Your task to perform on an android device: Show me recent news Image 0: 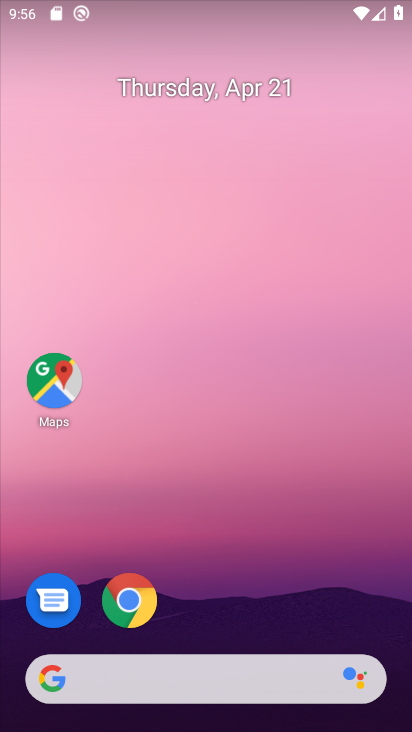
Step 0: drag from (247, 584) to (269, 12)
Your task to perform on an android device: Show me recent news Image 1: 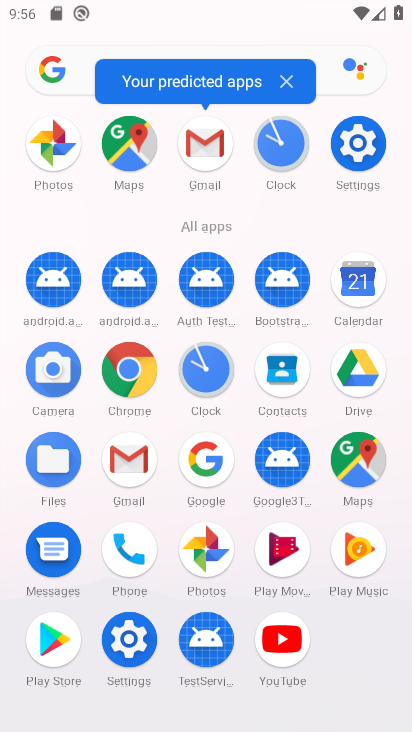
Step 1: click (215, 463)
Your task to perform on an android device: Show me recent news Image 2: 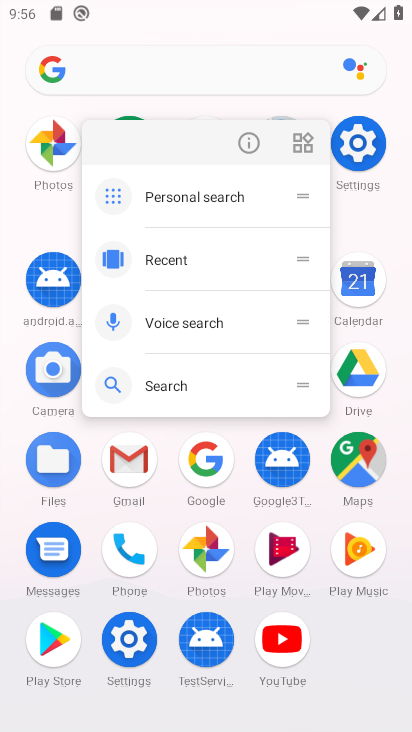
Step 2: click (207, 456)
Your task to perform on an android device: Show me recent news Image 3: 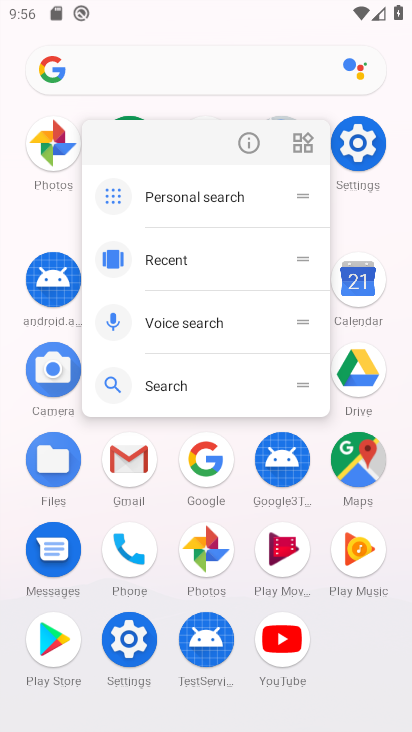
Step 3: click (206, 474)
Your task to perform on an android device: Show me recent news Image 4: 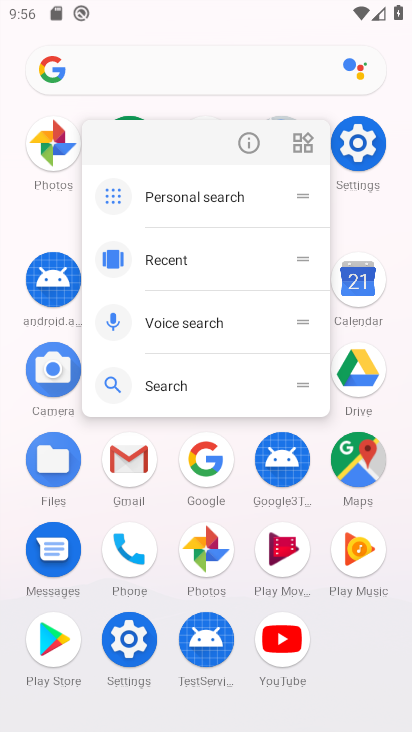
Step 4: click (198, 464)
Your task to perform on an android device: Show me recent news Image 5: 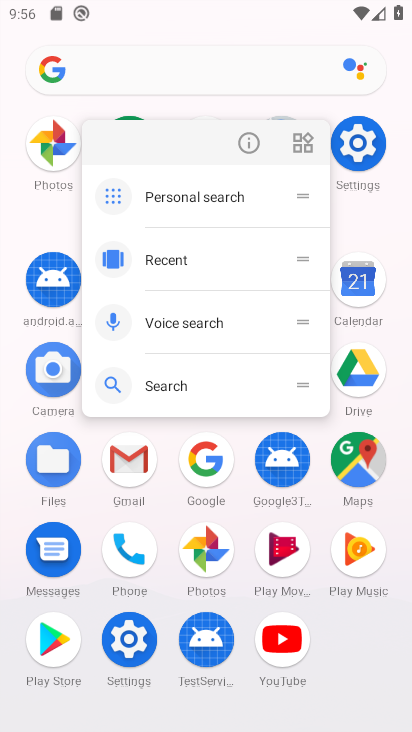
Step 5: click (214, 457)
Your task to perform on an android device: Show me recent news Image 6: 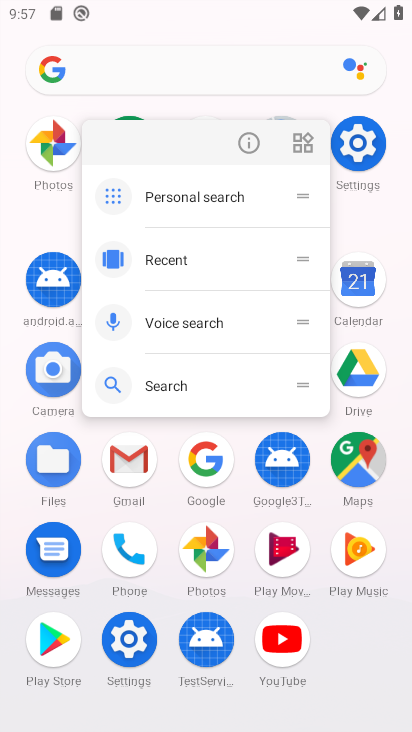
Step 6: click (213, 457)
Your task to perform on an android device: Show me recent news Image 7: 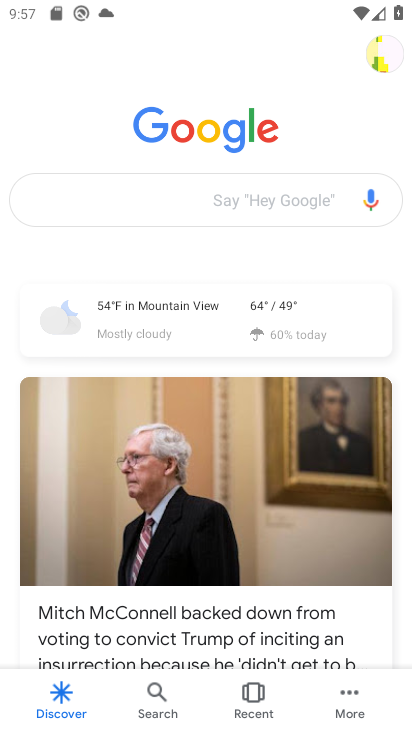
Step 7: task complete